Your task to perform on an android device: Open my contact list Image 0: 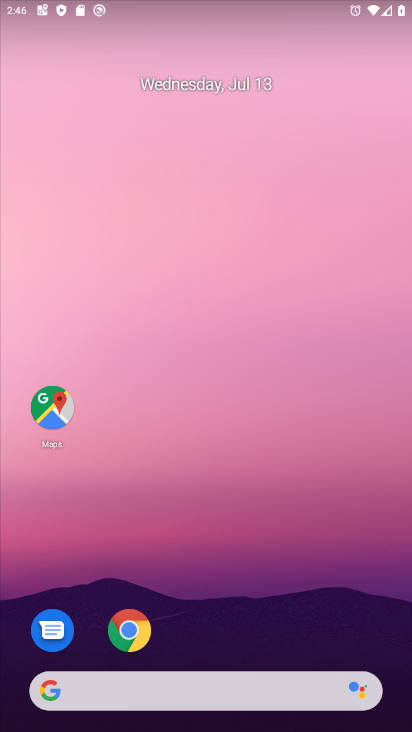
Step 0: drag from (285, 612) to (291, 275)
Your task to perform on an android device: Open my contact list Image 1: 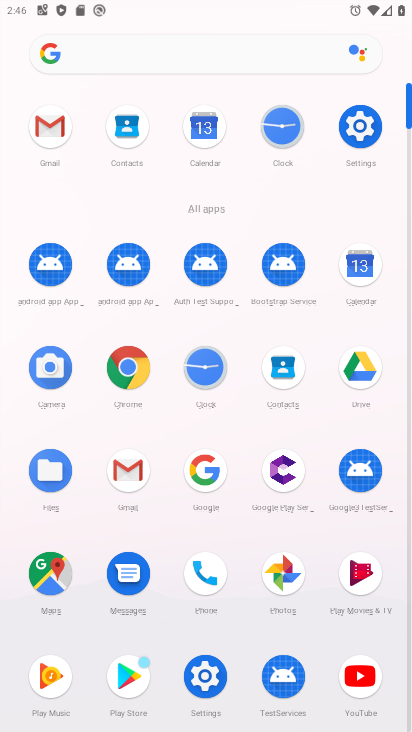
Step 1: click (292, 365)
Your task to perform on an android device: Open my contact list Image 2: 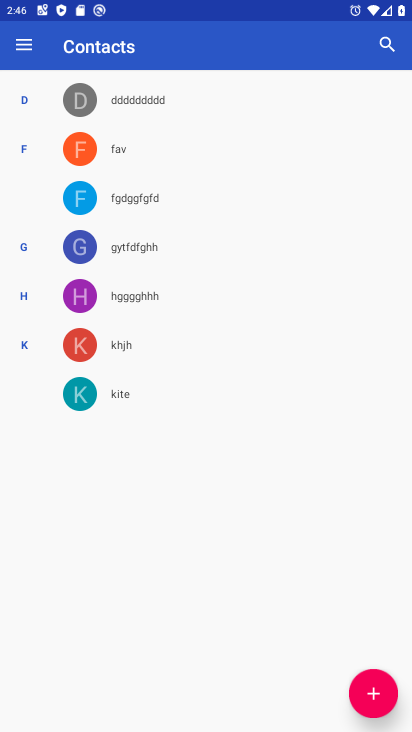
Step 2: task complete